Your task to perform on an android device: Show me productivity apps on the Play Store Image 0: 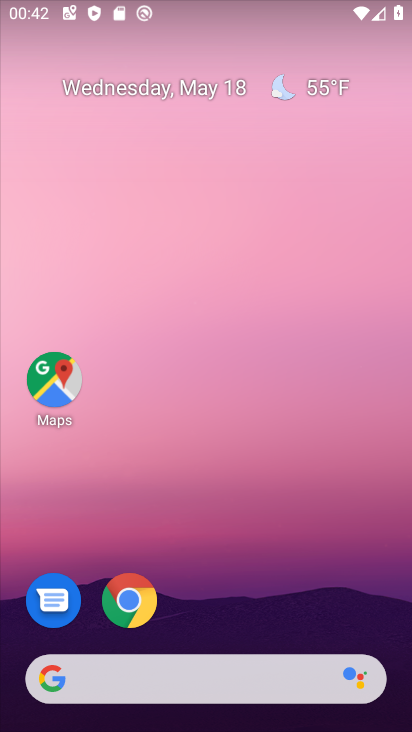
Step 0: drag from (223, 682) to (156, 116)
Your task to perform on an android device: Show me productivity apps on the Play Store Image 1: 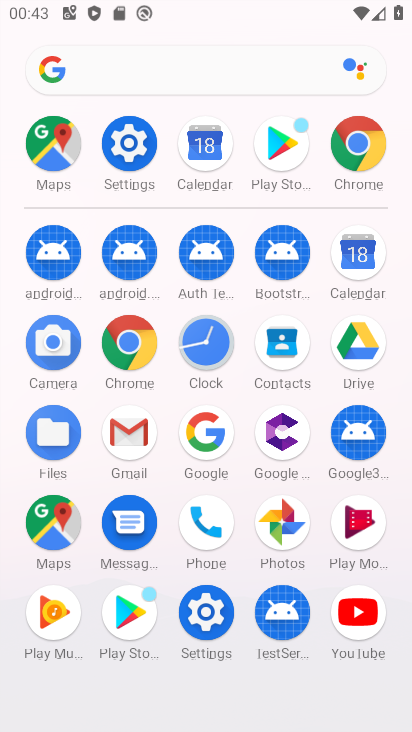
Step 1: click (123, 618)
Your task to perform on an android device: Show me productivity apps on the Play Store Image 2: 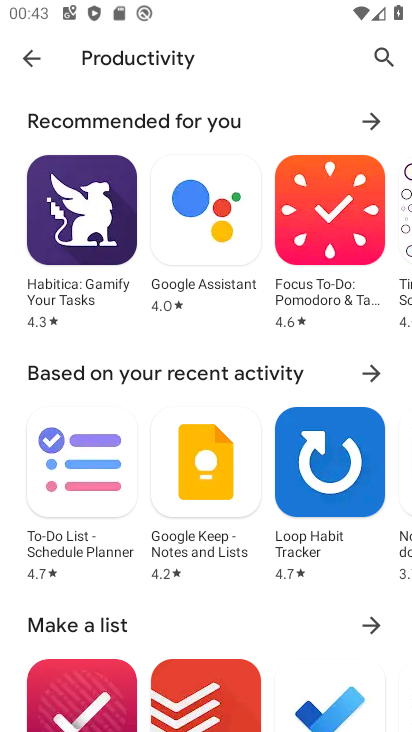
Step 2: task complete